Your task to perform on an android device: Open the calendar and show me this week's events? Image 0: 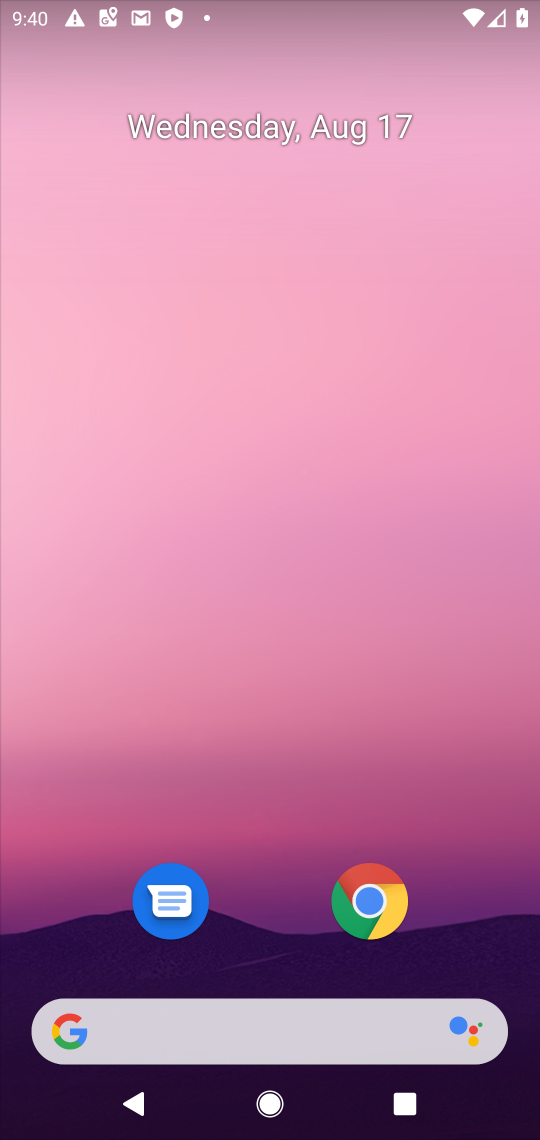
Step 0: drag from (285, 796) to (271, 455)
Your task to perform on an android device: Open the calendar and show me this week's events? Image 1: 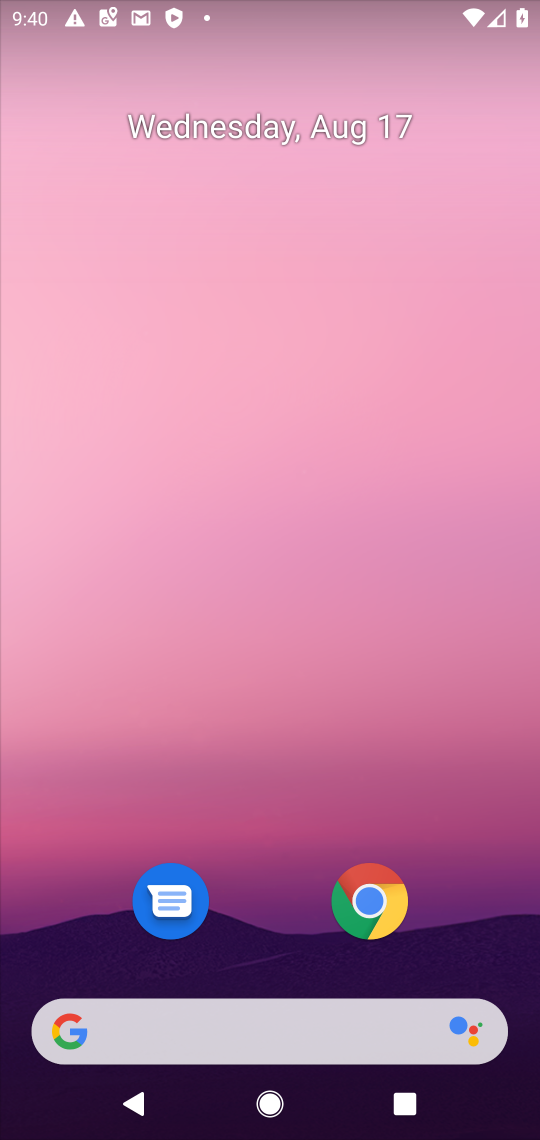
Step 1: click (359, 131)
Your task to perform on an android device: Open the calendar and show me this week's events? Image 2: 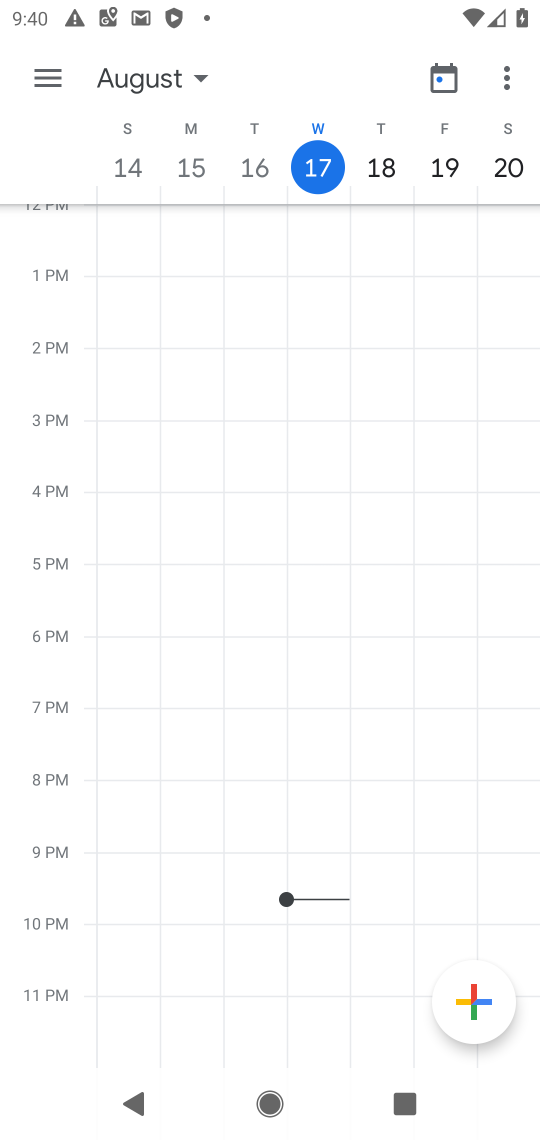
Step 2: task complete